Your task to perform on an android device: Open maps Image 0: 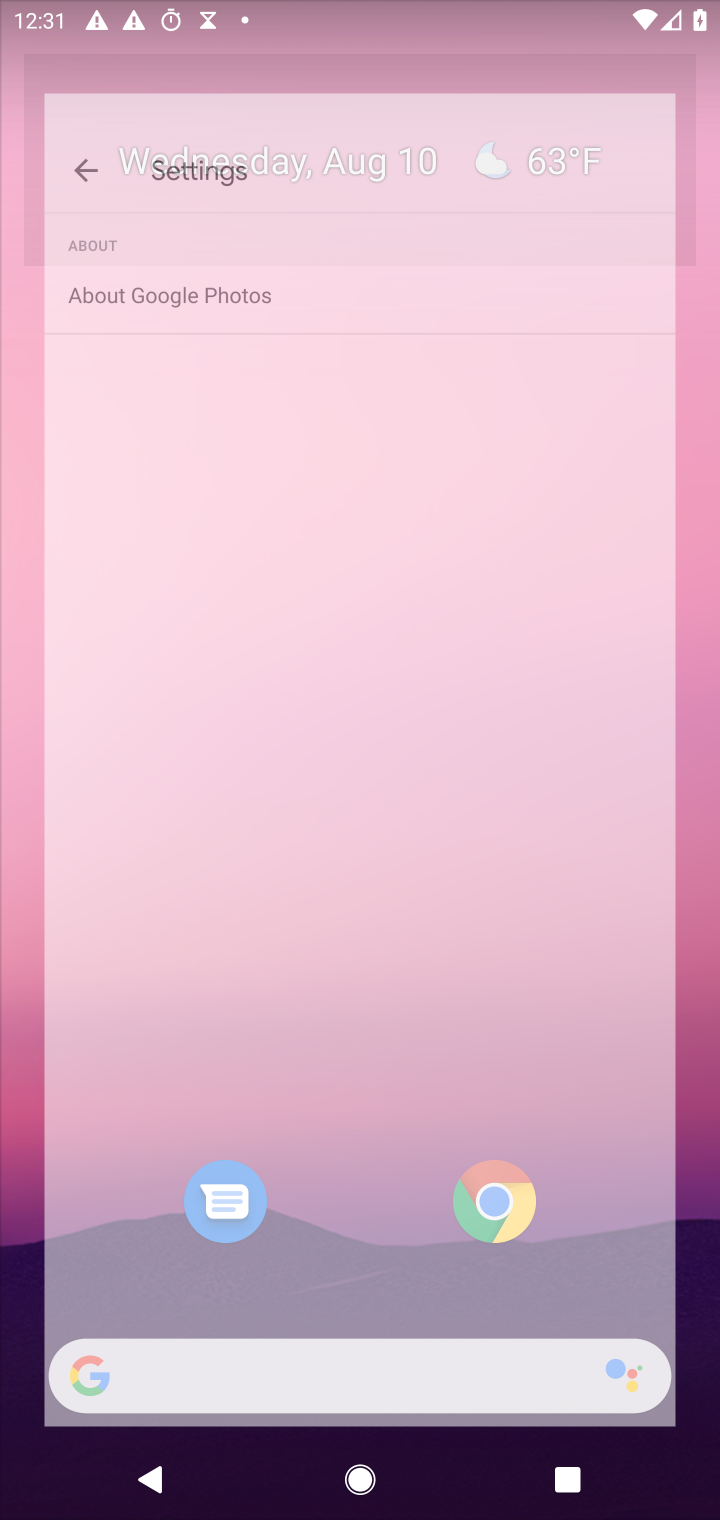
Step 0: press home button
Your task to perform on an android device: Open maps Image 1: 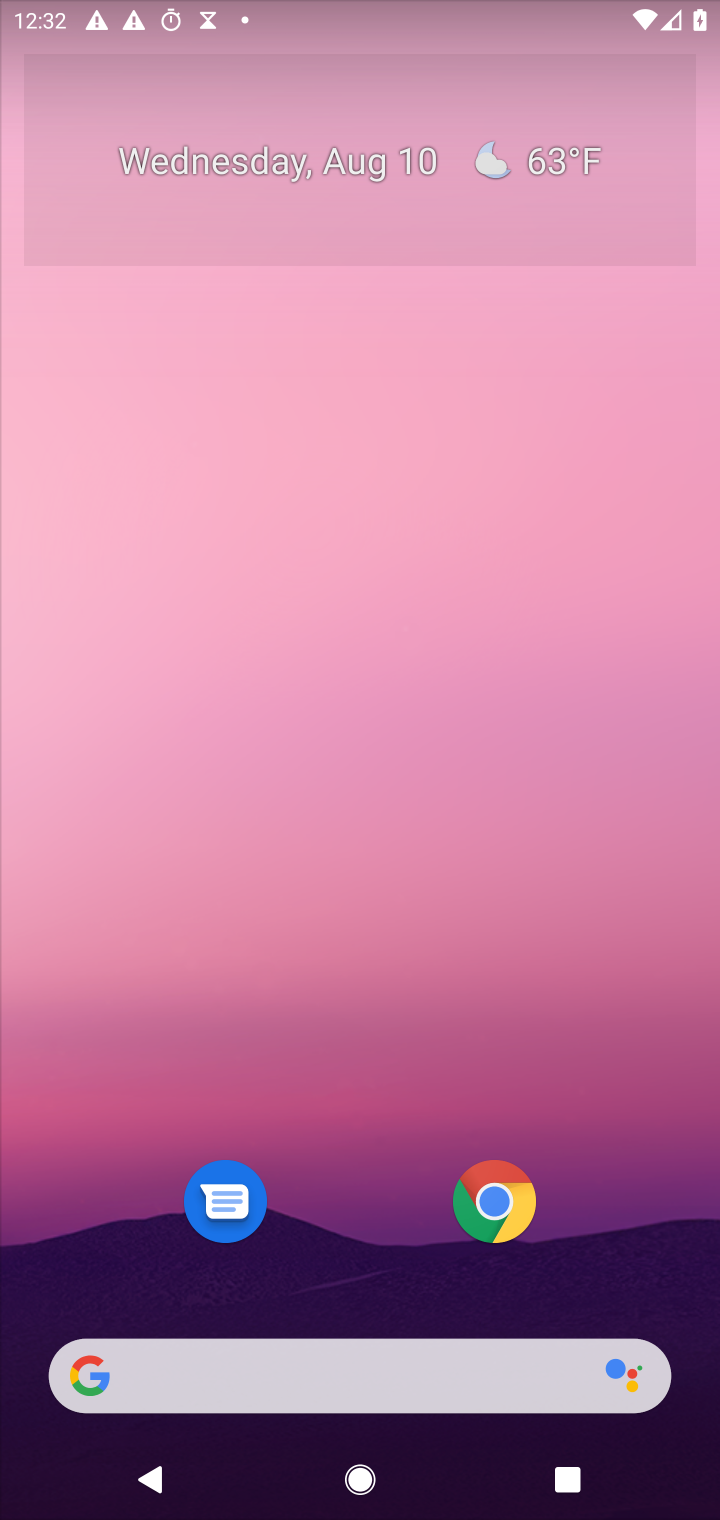
Step 1: drag from (388, 702) to (420, 427)
Your task to perform on an android device: Open maps Image 2: 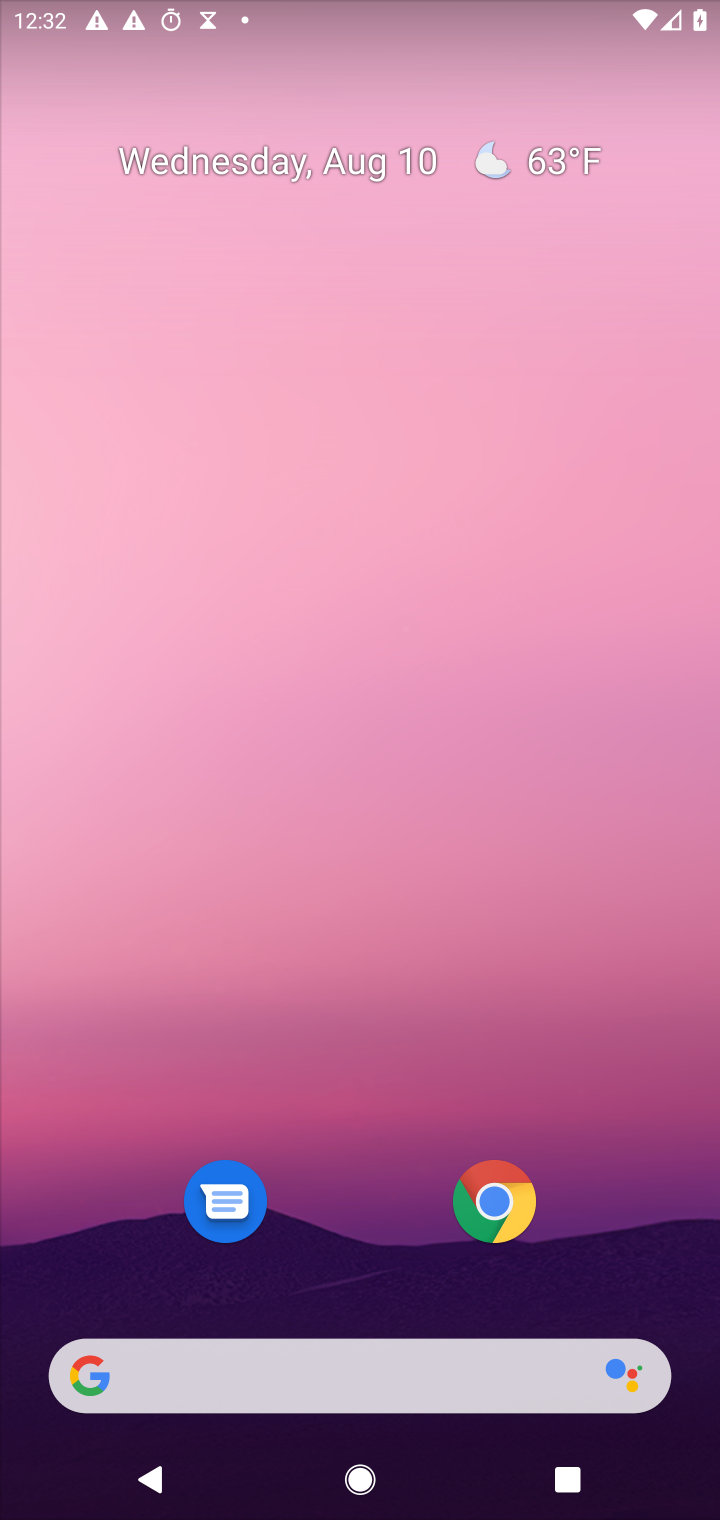
Step 2: drag from (353, 1206) to (372, 374)
Your task to perform on an android device: Open maps Image 3: 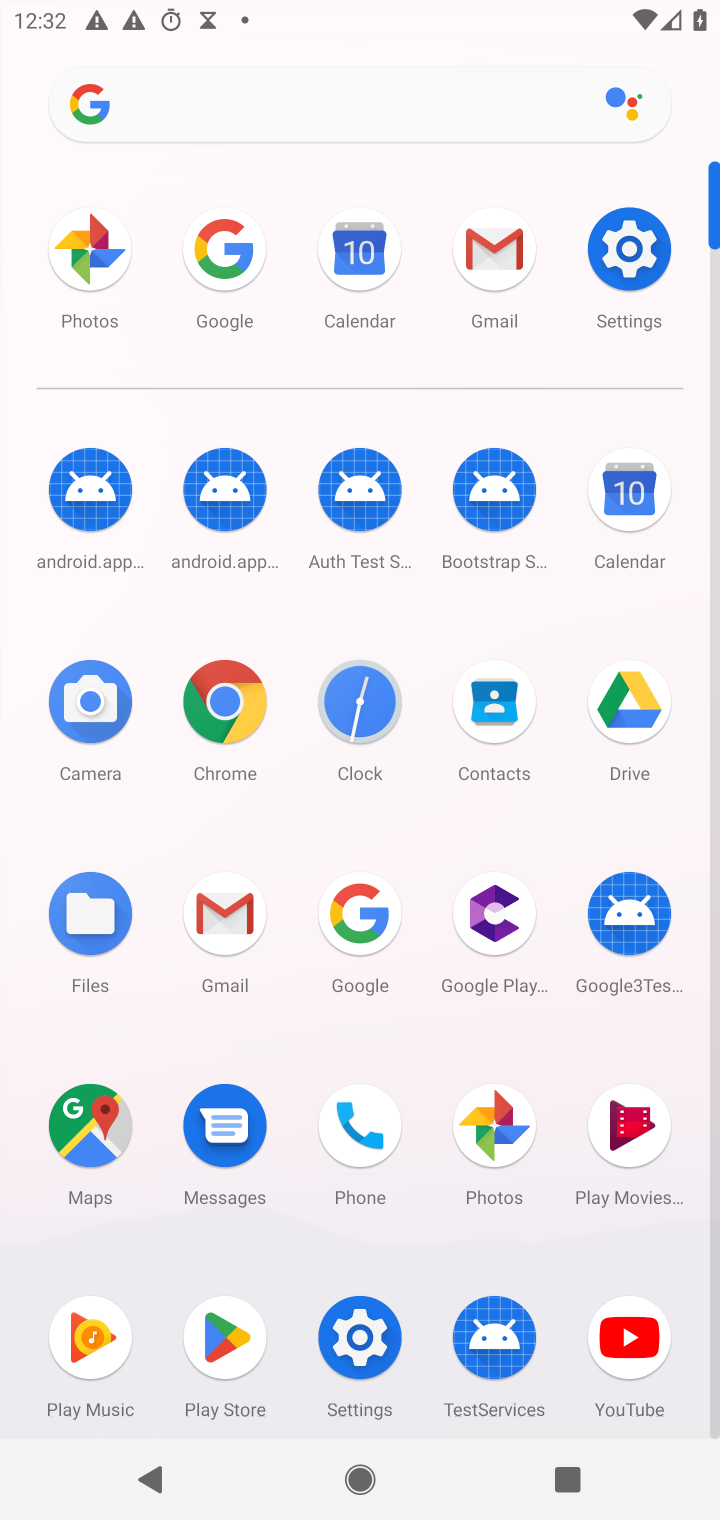
Step 3: click (78, 1097)
Your task to perform on an android device: Open maps Image 4: 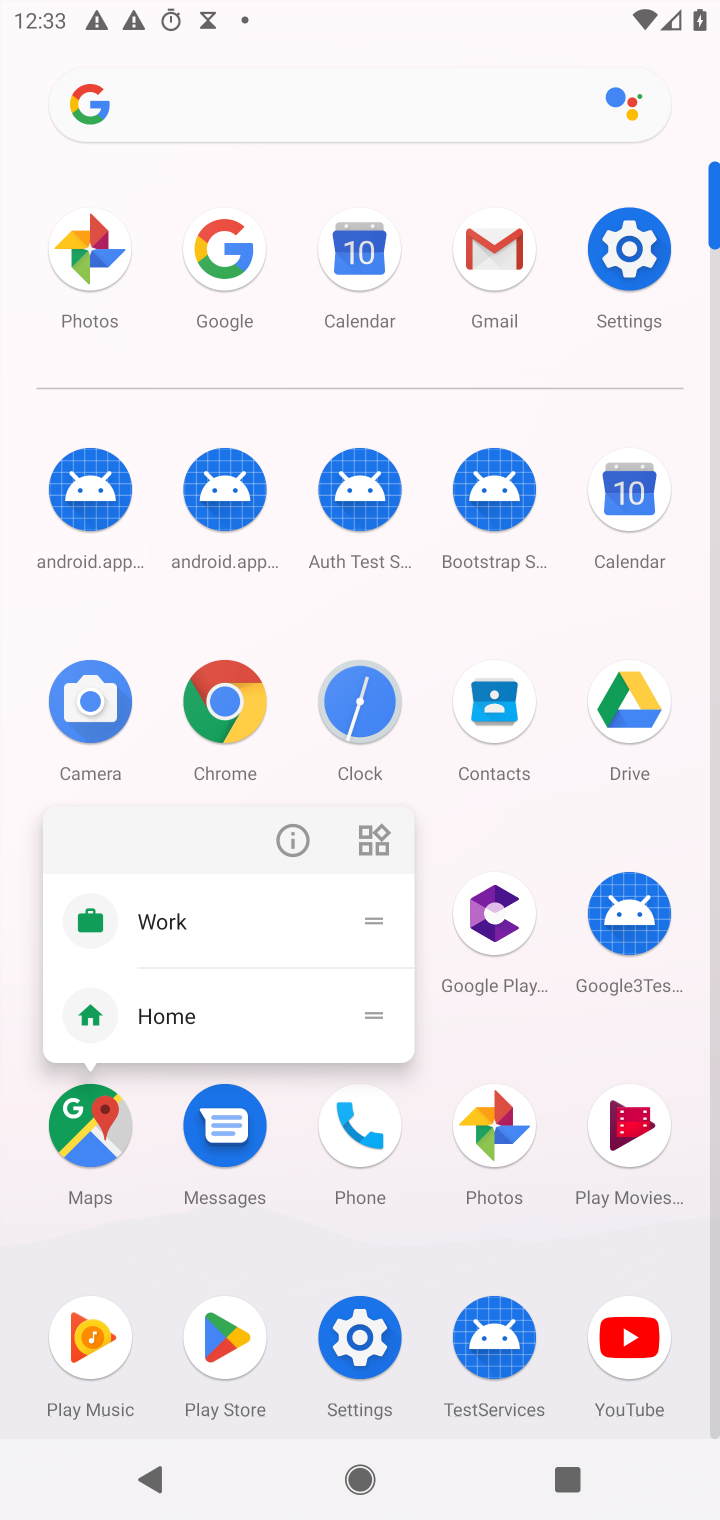
Step 4: click (92, 1127)
Your task to perform on an android device: Open maps Image 5: 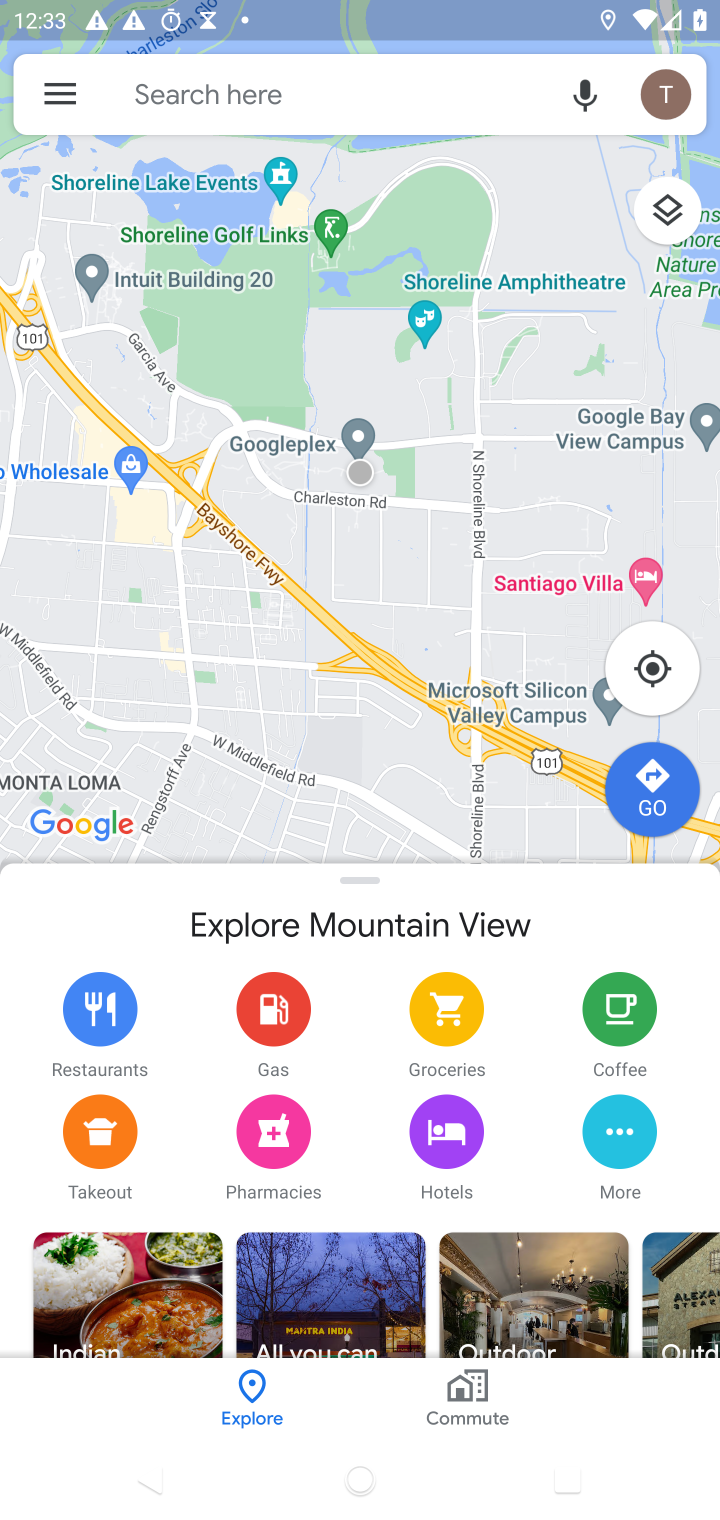
Step 5: task complete